Your task to perform on an android device: Open network settings Image 0: 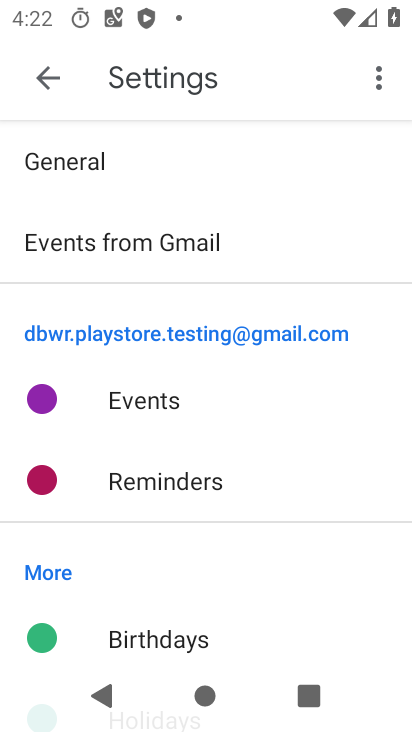
Step 0: press home button
Your task to perform on an android device: Open network settings Image 1: 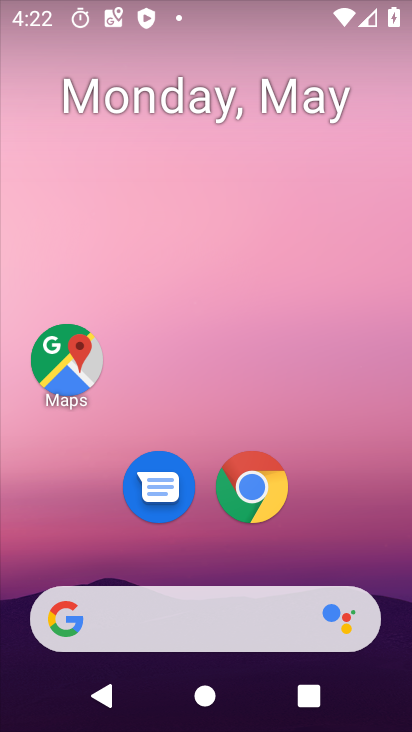
Step 1: drag from (347, 573) to (359, 0)
Your task to perform on an android device: Open network settings Image 2: 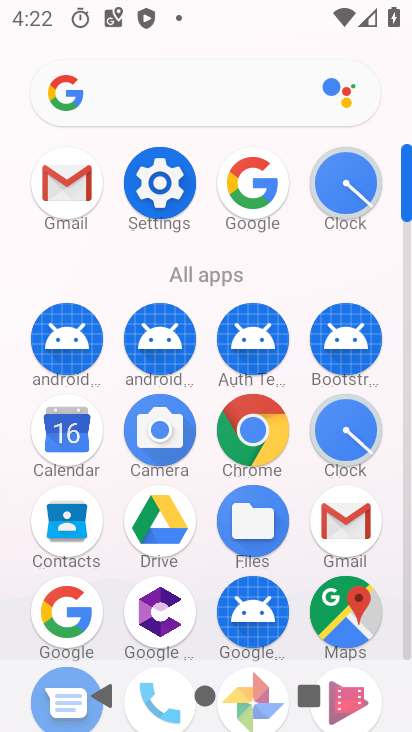
Step 2: click (156, 173)
Your task to perform on an android device: Open network settings Image 3: 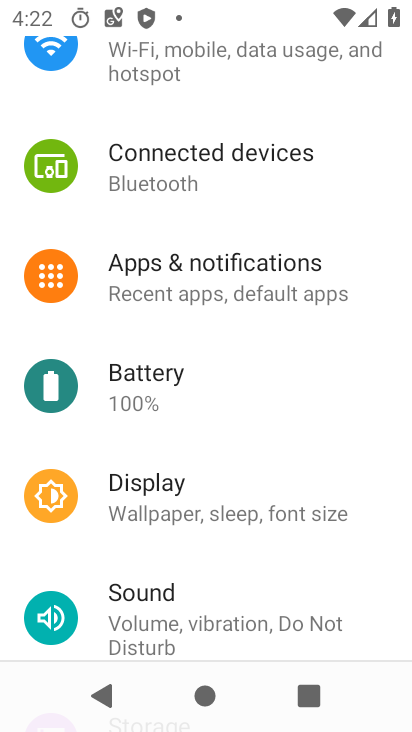
Step 3: drag from (349, 207) to (320, 447)
Your task to perform on an android device: Open network settings Image 4: 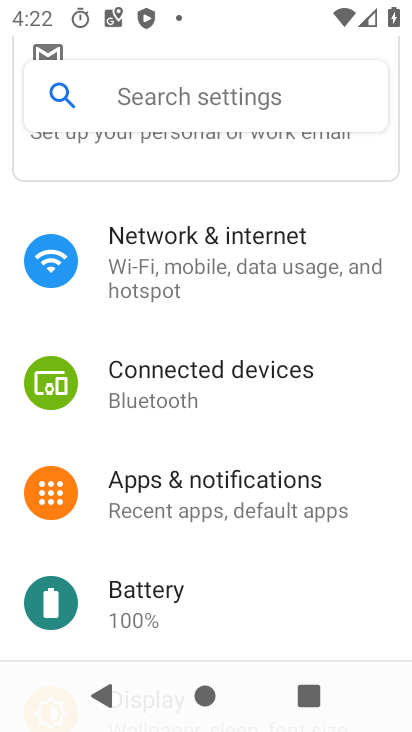
Step 4: click (177, 263)
Your task to perform on an android device: Open network settings Image 5: 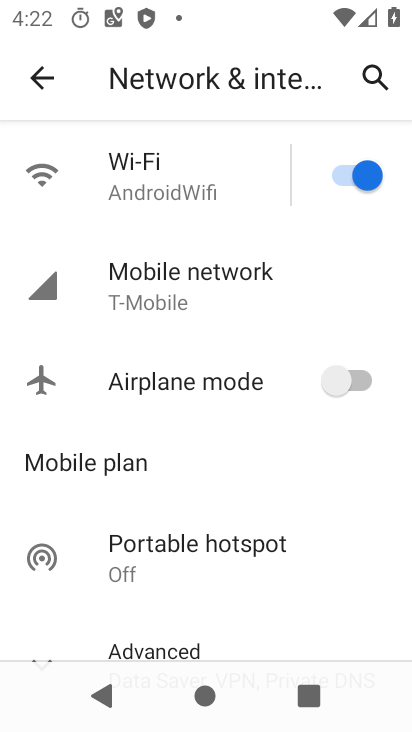
Step 5: click (177, 285)
Your task to perform on an android device: Open network settings Image 6: 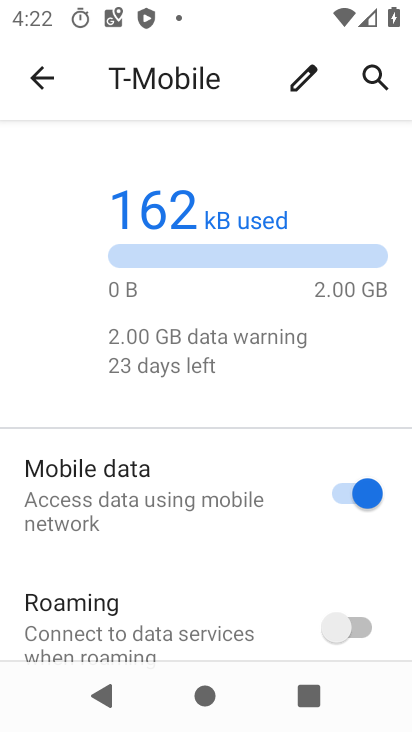
Step 6: drag from (177, 496) to (254, 145)
Your task to perform on an android device: Open network settings Image 7: 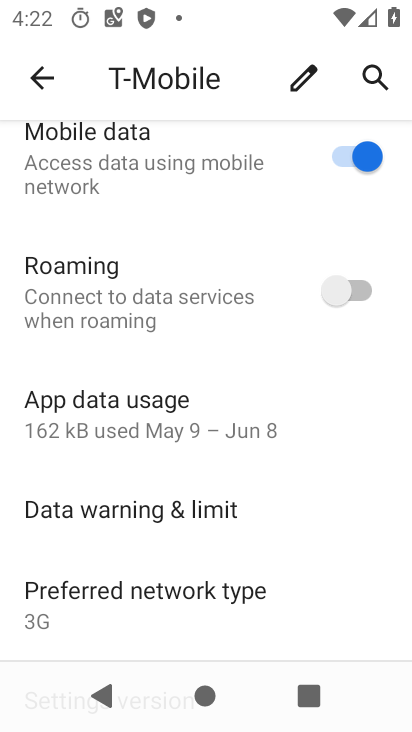
Step 7: drag from (141, 429) to (194, 219)
Your task to perform on an android device: Open network settings Image 8: 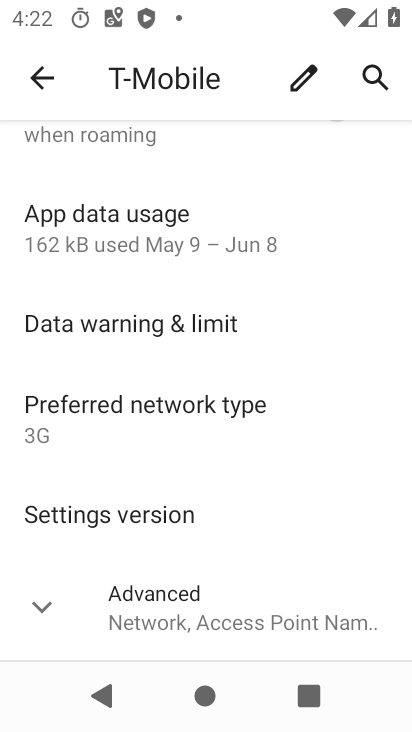
Step 8: click (32, 619)
Your task to perform on an android device: Open network settings Image 9: 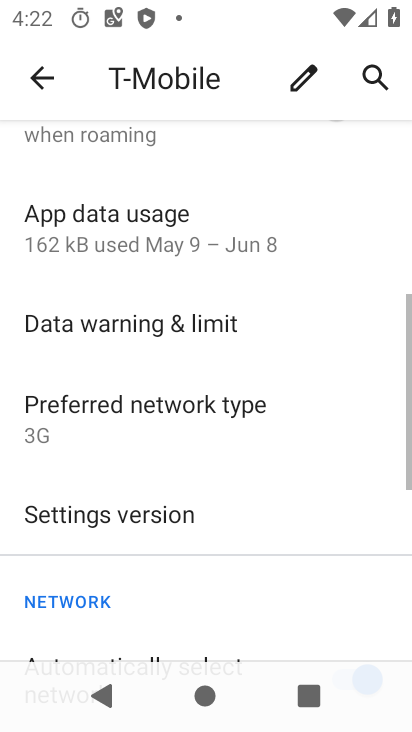
Step 9: task complete